Your task to perform on an android device: set the stopwatch Image 0: 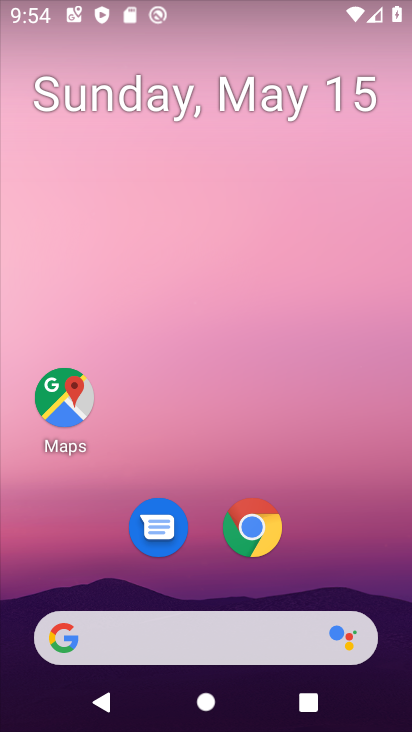
Step 0: drag from (77, 602) to (174, 203)
Your task to perform on an android device: set the stopwatch Image 1: 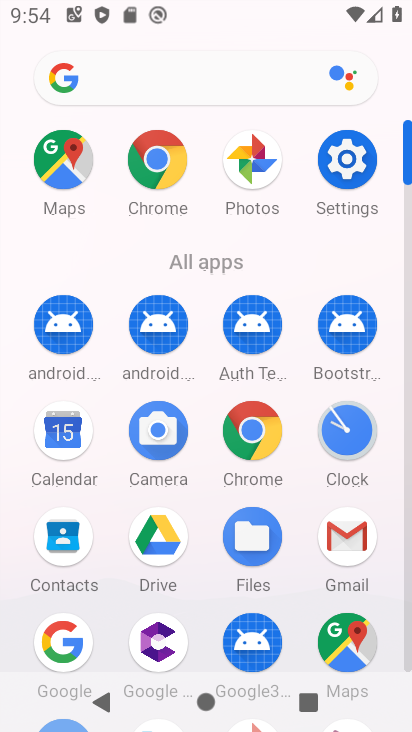
Step 1: click (352, 439)
Your task to perform on an android device: set the stopwatch Image 2: 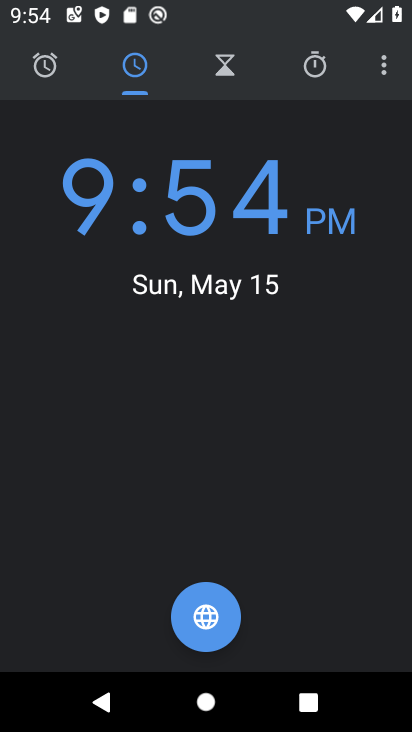
Step 2: click (314, 87)
Your task to perform on an android device: set the stopwatch Image 3: 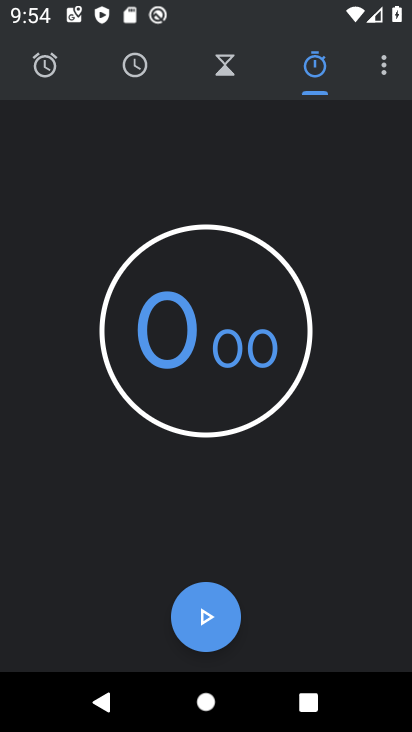
Step 3: click (219, 635)
Your task to perform on an android device: set the stopwatch Image 4: 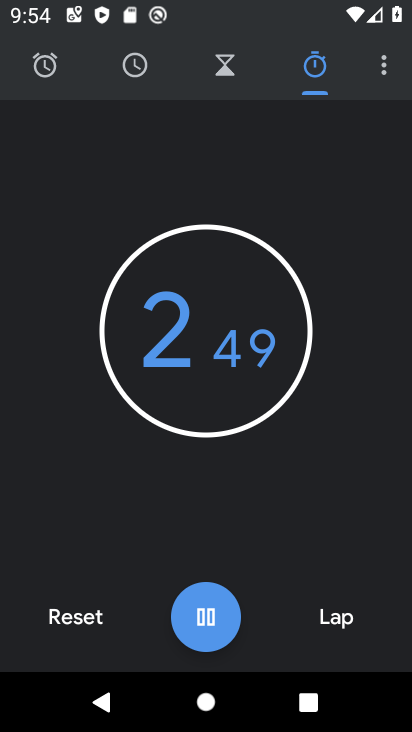
Step 4: task complete